Your task to perform on an android device: empty trash in the gmail app Image 0: 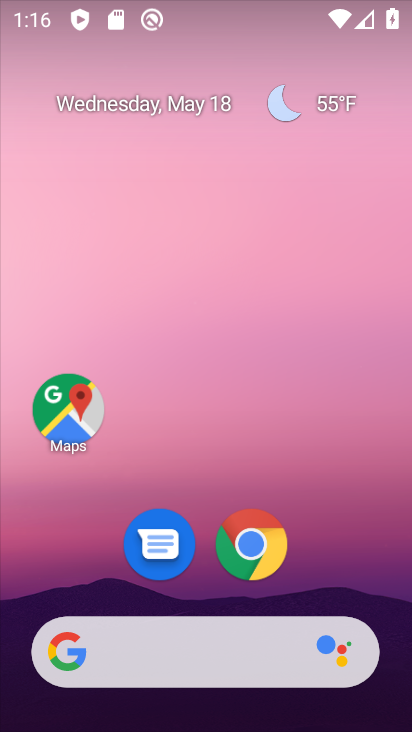
Step 0: drag from (332, 561) to (209, 111)
Your task to perform on an android device: empty trash in the gmail app Image 1: 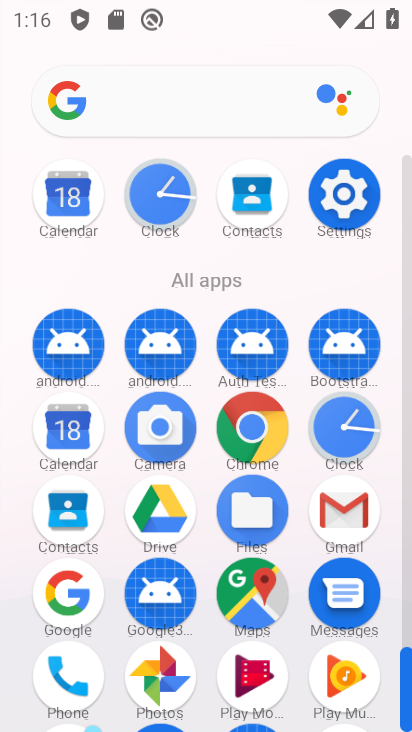
Step 1: click (349, 519)
Your task to perform on an android device: empty trash in the gmail app Image 2: 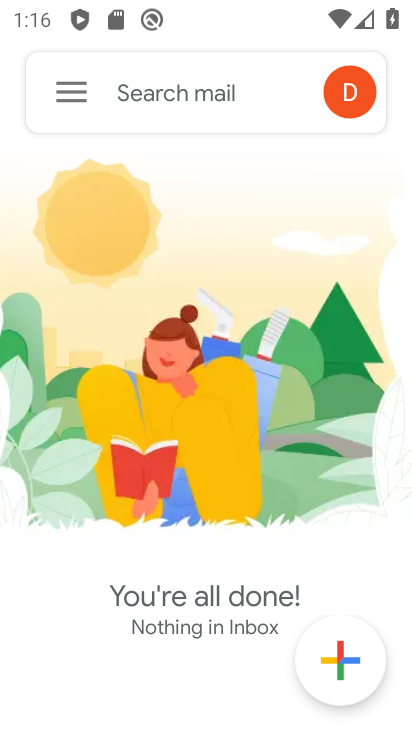
Step 2: click (74, 88)
Your task to perform on an android device: empty trash in the gmail app Image 3: 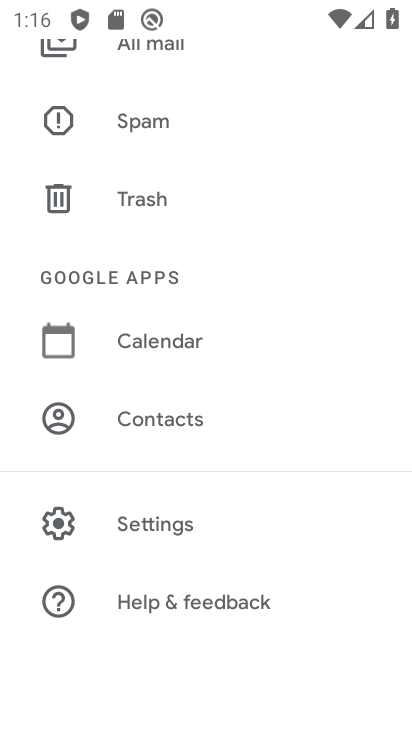
Step 3: click (173, 205)
Your task to perform on an android device: empty trash in the gmail app Image 4: 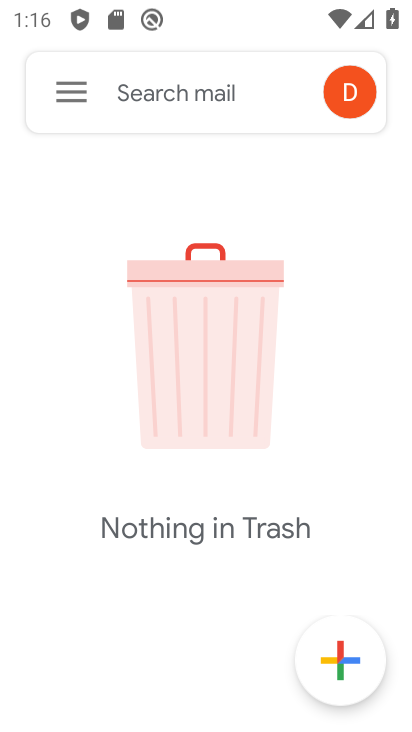
Step 4: task complete